Your task to perform on an android device: set an alarm Image 0: 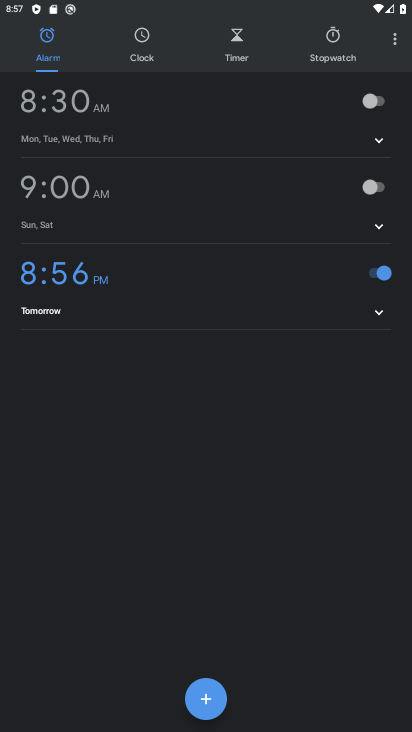
Step 0: click (201, 701)
Your task to perform on an android device: set an alarm Image 1: 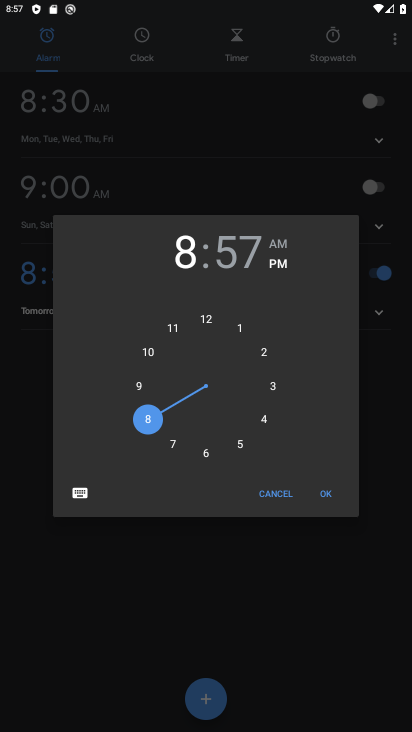
Step 1: click (335, 494)
Your task to perform on an android device: set an alarm Image 2: 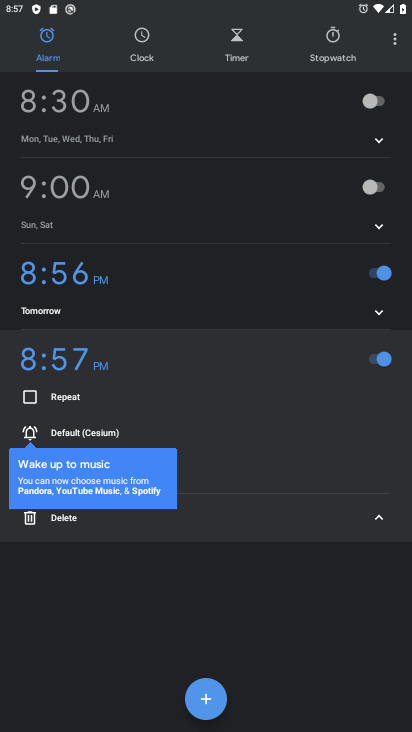
Step 2: task complete